Your task to perform on an android device: Go to display settings Image 0: 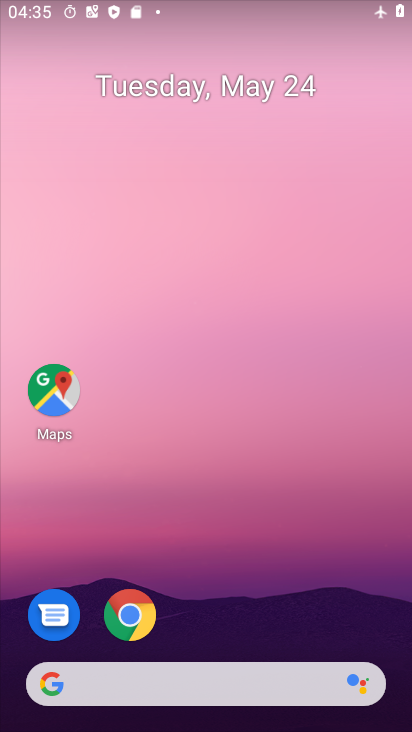
Step 0: drag from (209, 600) to (274, 144)
Your task to perform on an android device: Go to display settings Image 1: 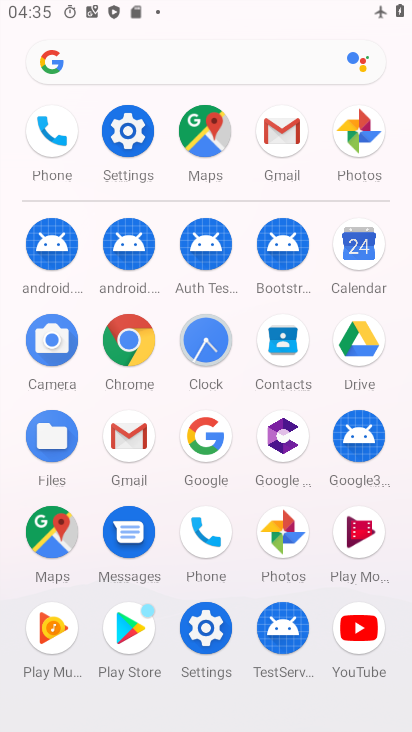
Step 1: click (126, 134)
Your task to perform on an android device: Go to display settings Image 2: 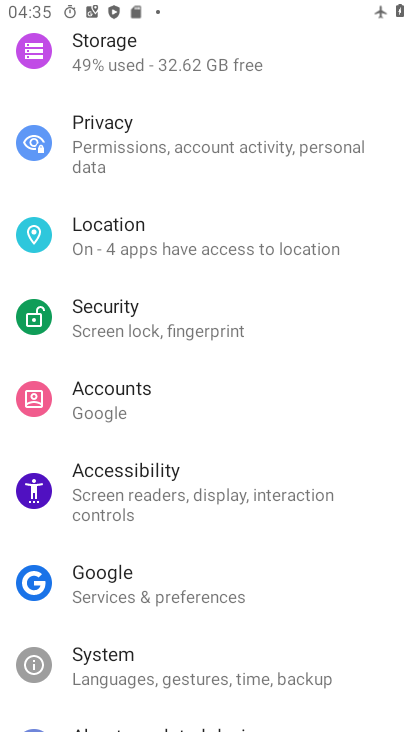
Step 2: drag from (213, 211) to (104, 647)
Your task to perform on an android device: Go to display settings Image 3: 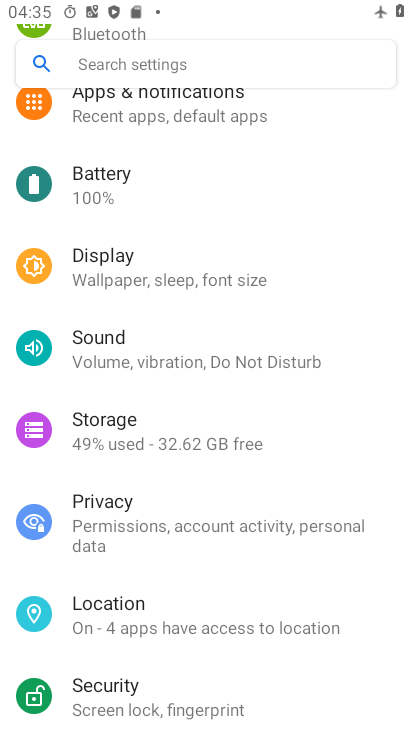
Step 3: click (138, 256)
Your task to perform on an android device: Go to display settings Image 4: 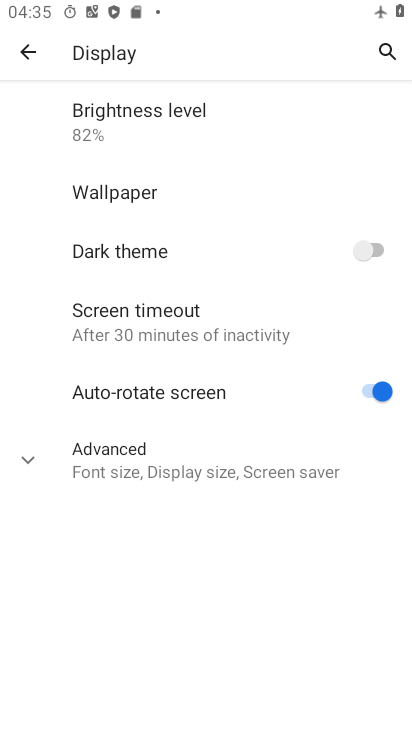
Step 4: task complete